Your task to perform on an android device: Search for Italian restaurants on Maps Image 0: 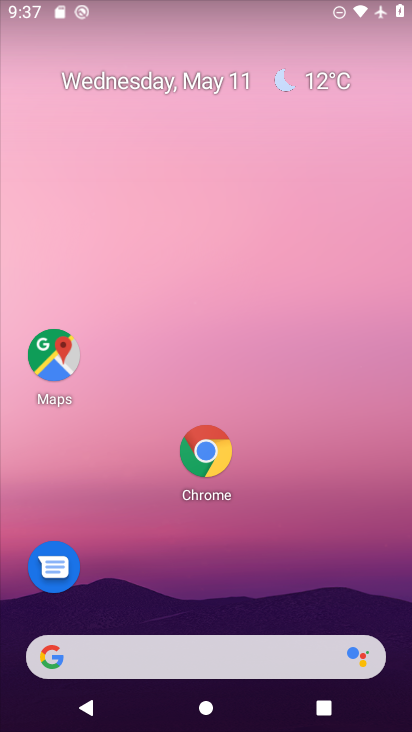
Step 0: press home button
Your task to perform on an android device: Search for Italian restaurants on Maps Image 1: 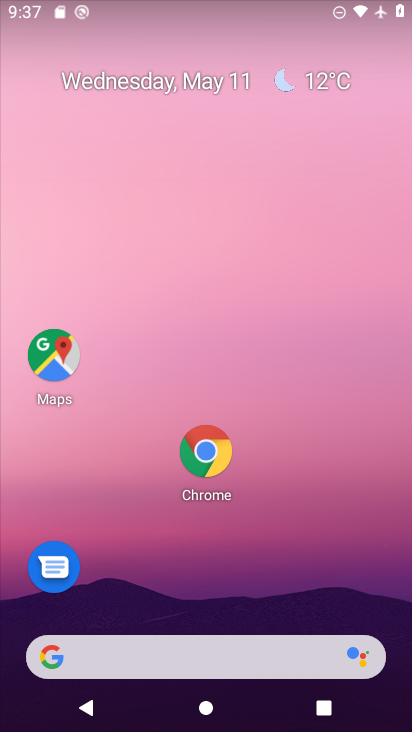
Step 1: click (50, 350)
Your task to perform on an android device: Search for Italian restaurants on Maps Image 2: 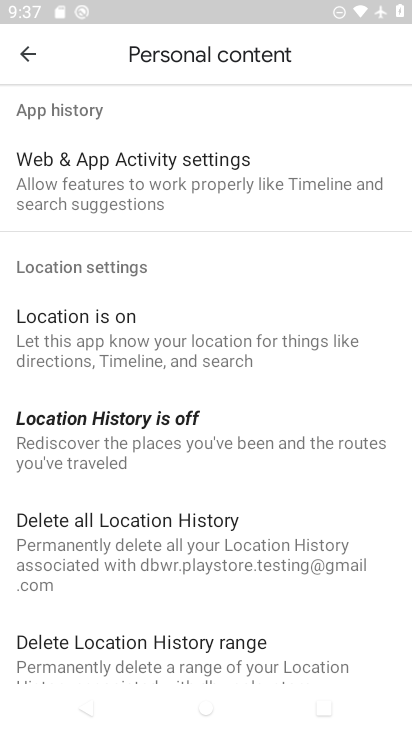
Step 2: click (20, 62)
Your task to perform on an android device: Search for Italian restaurants on Maps Image 3: 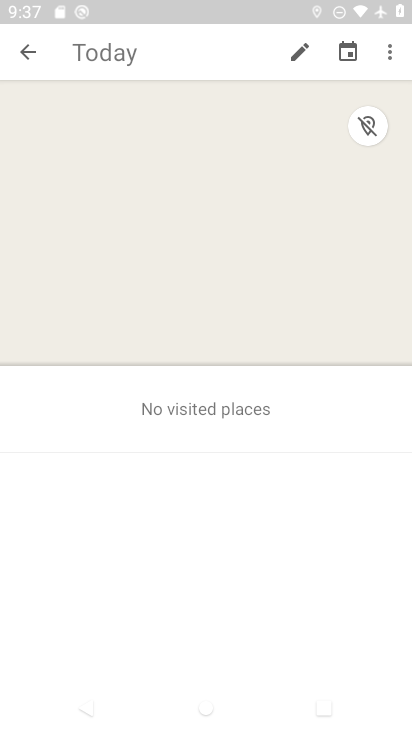
Step 3: click (25, 62)
Your task to perform on an android device: Search for Italian restaurants on Maps Image 4: 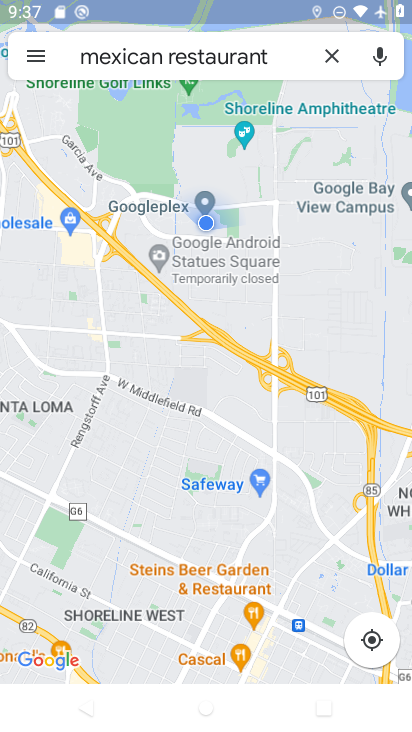
Step 4: click (336, 51)
Your task to perform on an android device: Search for Italian restaurants on Maps Image 5: 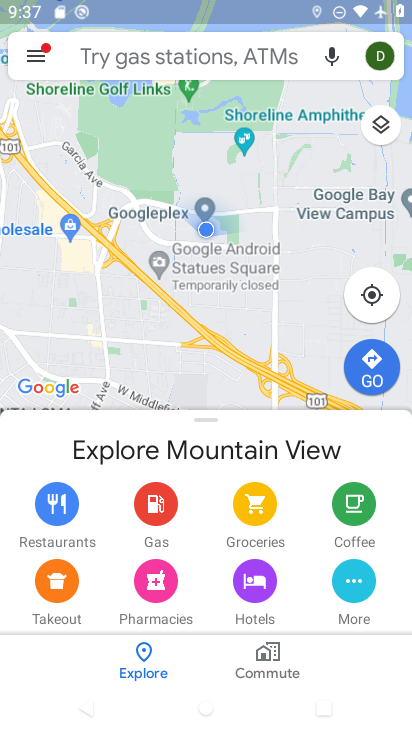
Step 5: click (182, 49)
Your task to perform on an android device: Search for Italian restaurants on Maps Image 6: 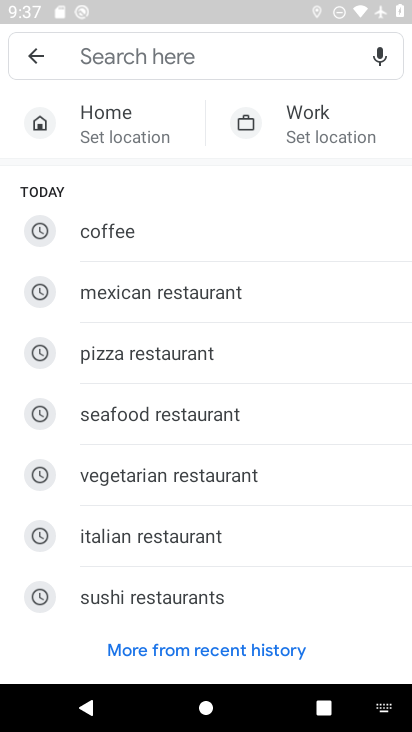
Step 6: click (140, 539)
Your task to perform on an android device: Search for Italian restaurants on Maps Image 7: 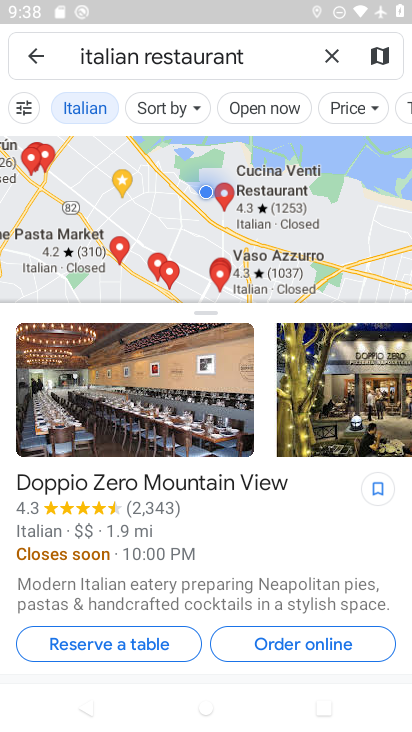
Step 7: task complete